Your task to perform on an android device: Go to ESPN.com Image 0: 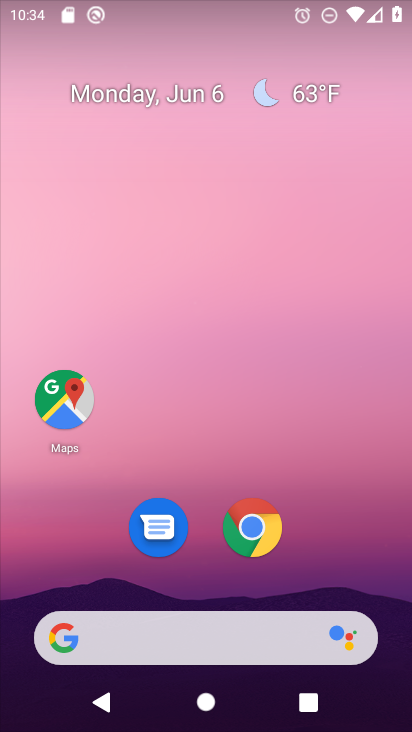
Step 0: drag from (349, 578) to (363, 116)
Your task to perform on an android device: Go to ESPN.com Image 1: 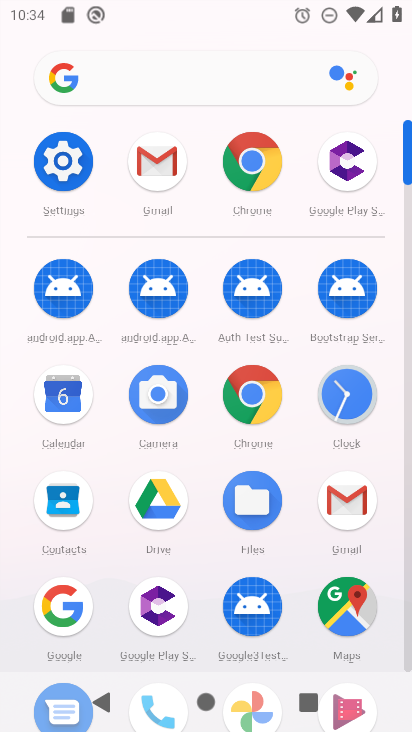
Step 1: click (266, 389)
Your task to perform on an android device: Go to ESPN.com Image 2: 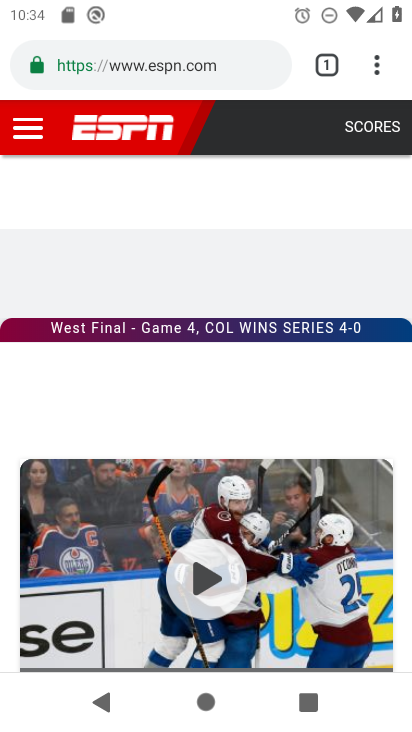
Step 2: task complete